Your task to perform on an android device: Open internet settings Image 0: 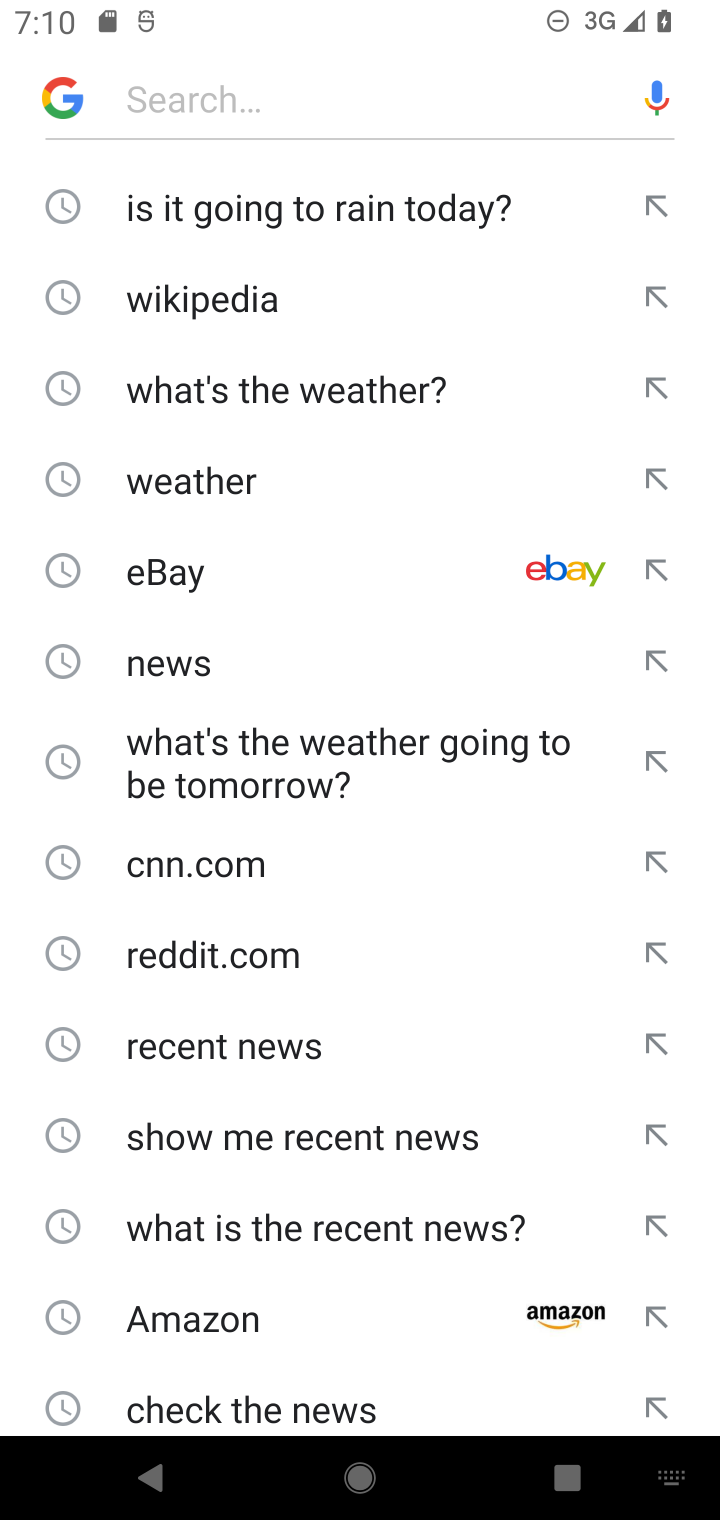
Step 0: press home button
Your task to perform on an android device: Open internet settings Image 1: 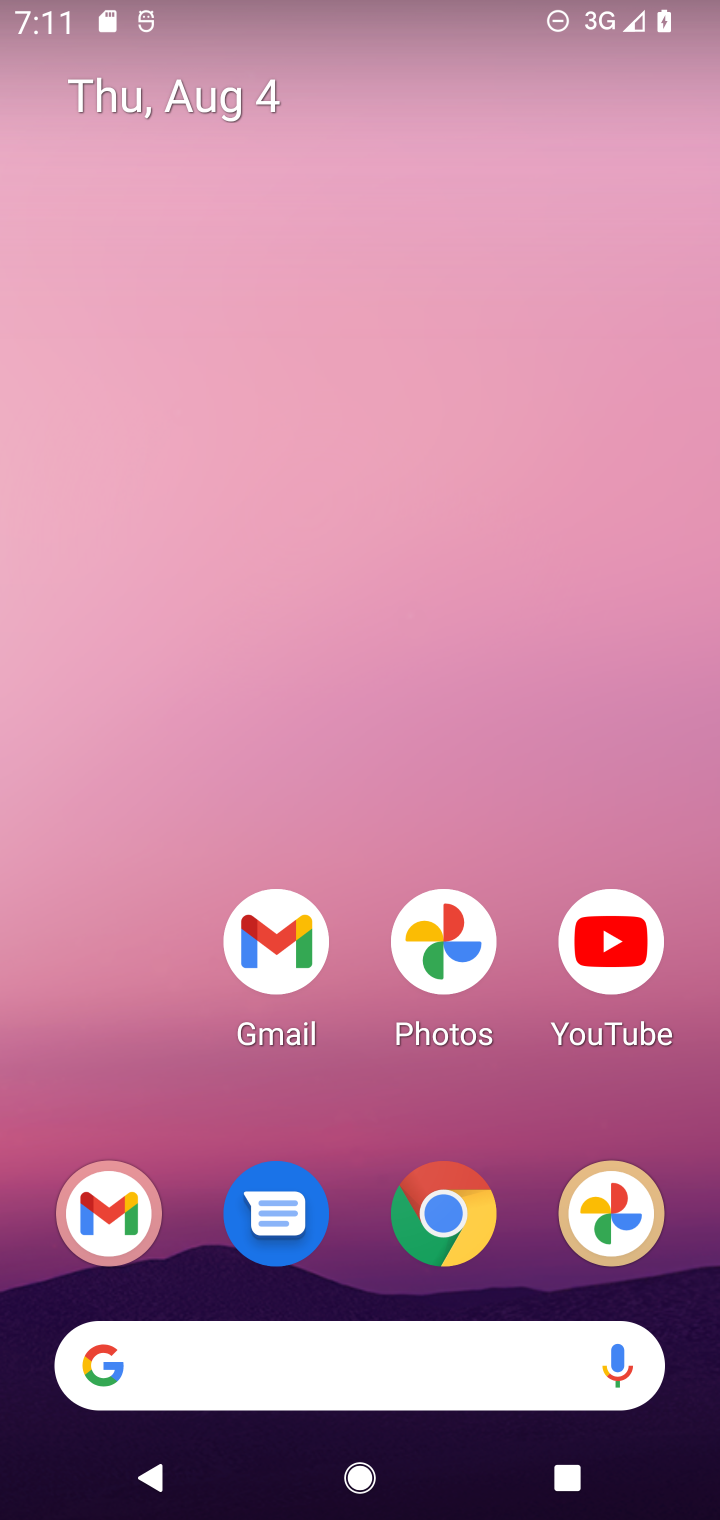
Step 1: drag from (174, 1025) to (189, 242)
Your task to perform on an android device: Open internet settings Image 2: 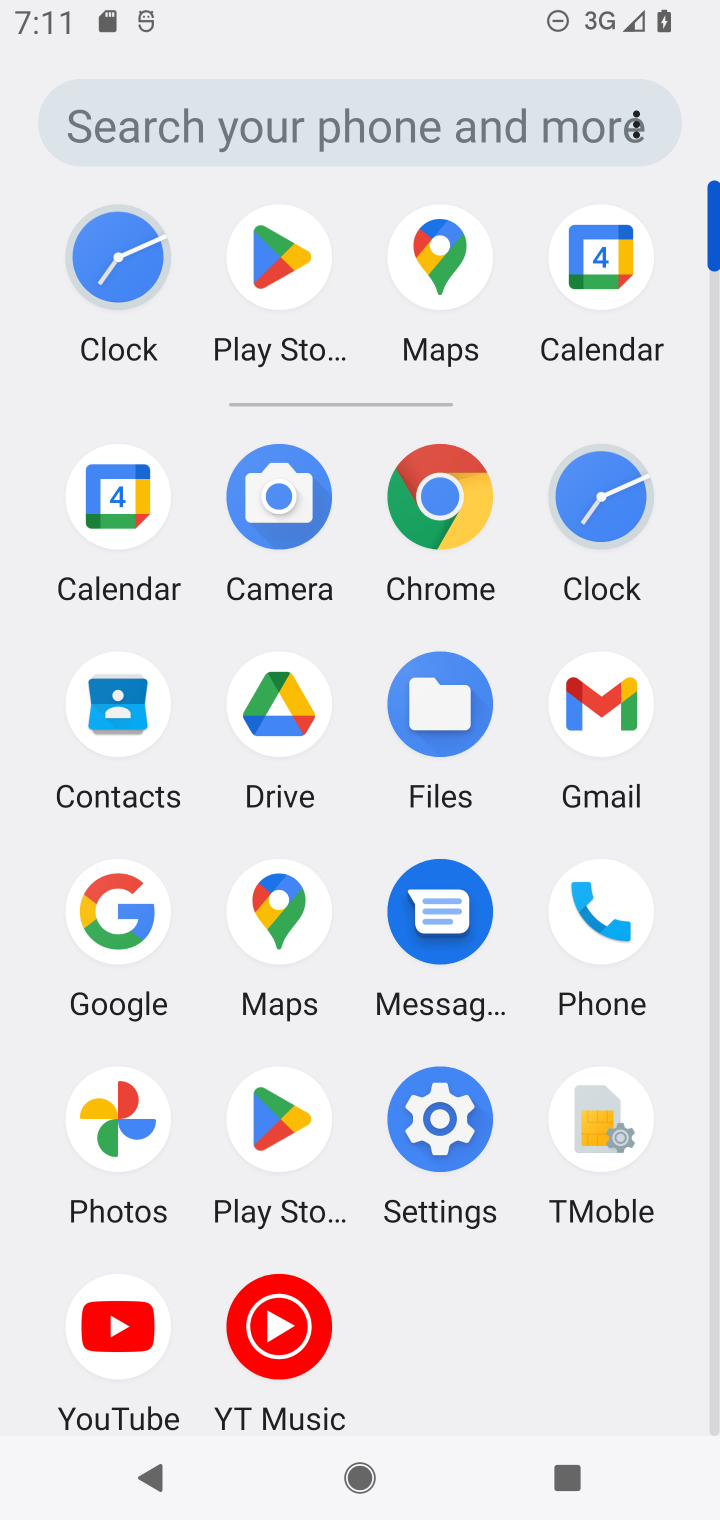
Step 2: click (442, 1122)
Your task to perform on an android device: Open internet settings Image 3: 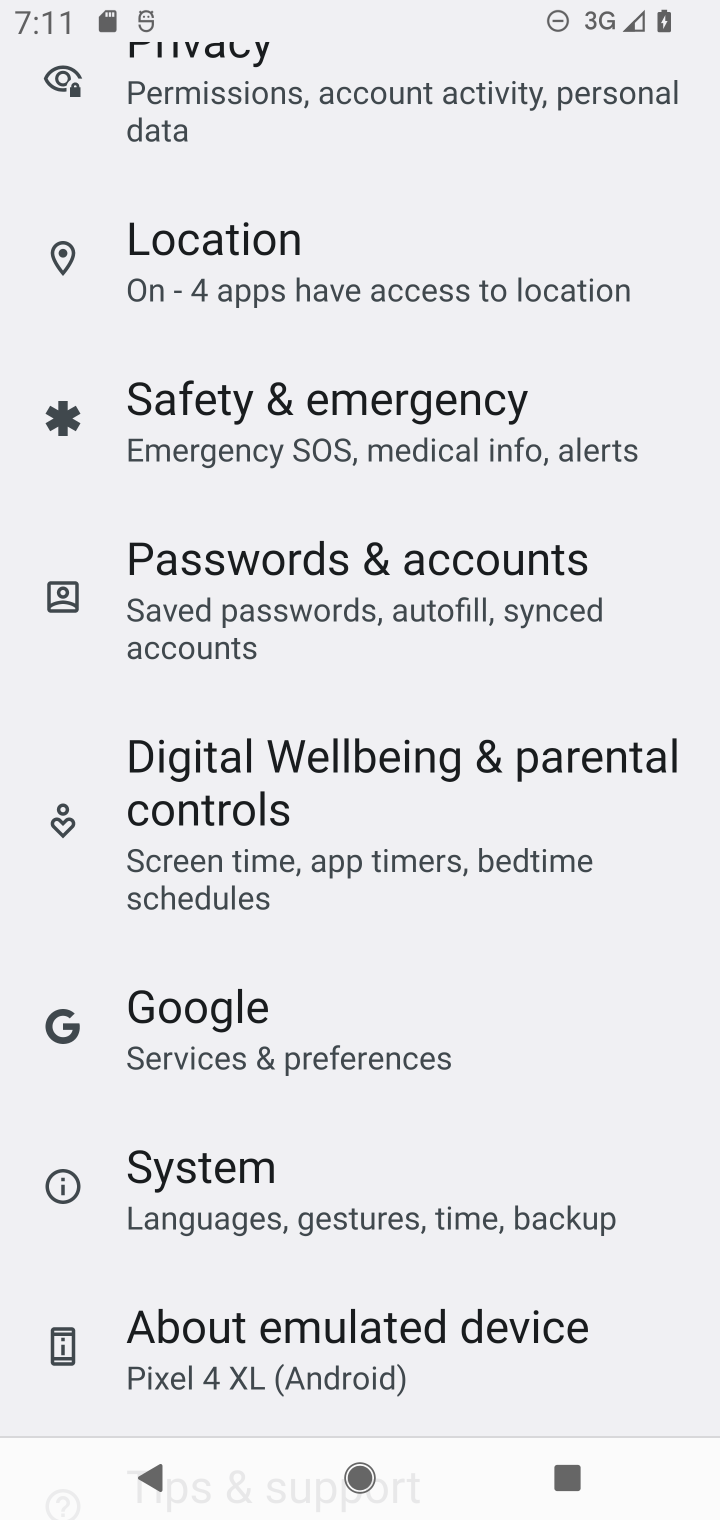
Step 3: drag from (656, 497) to (650, 798)
Your task to perform on an android device: Open internet settings Image 4: 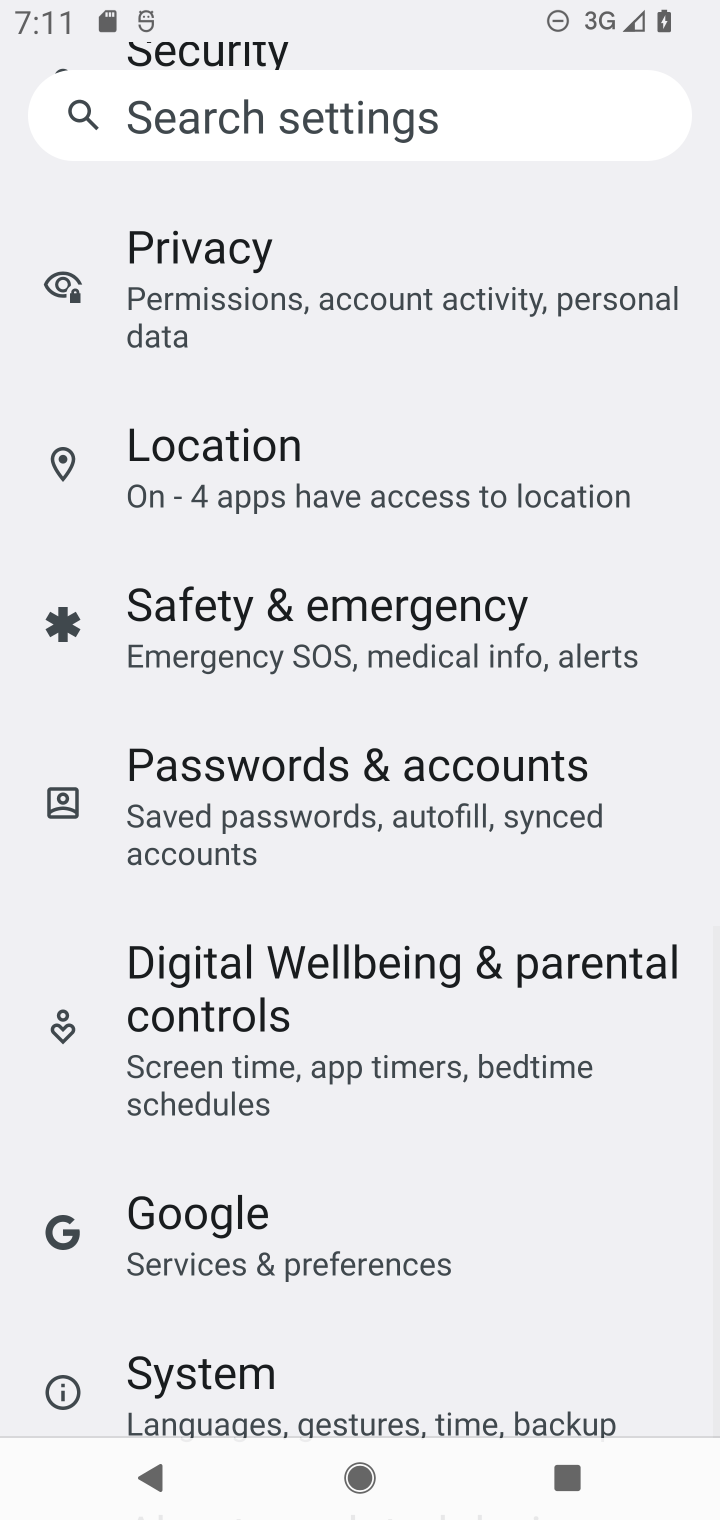
Step 4: drag from (644, 440) to (648, 825)
Your task to perform on an android device: Open internet settings Image 5: 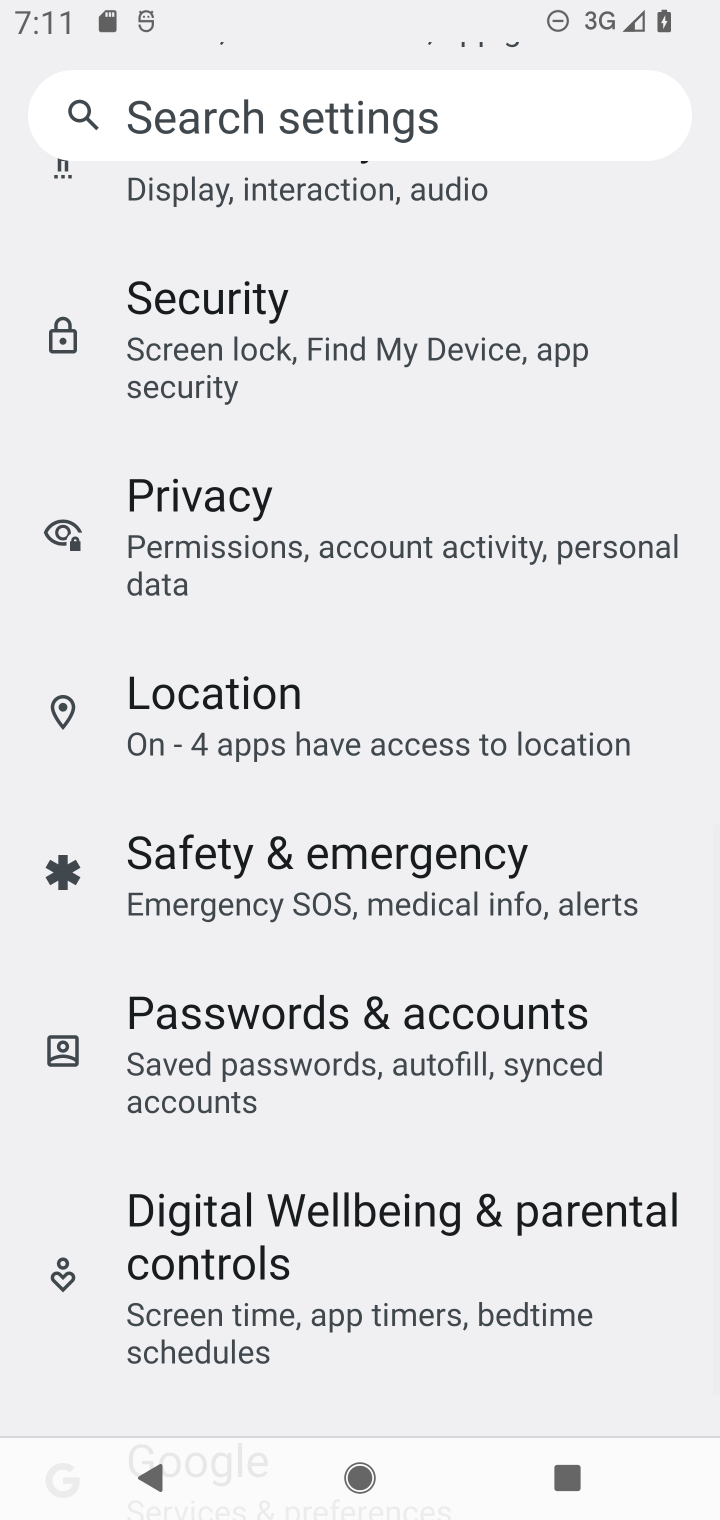
Step 5: drag from (638, 320) to (617, 766)
Your task to perform on an android device: Open internet settings Image 6: 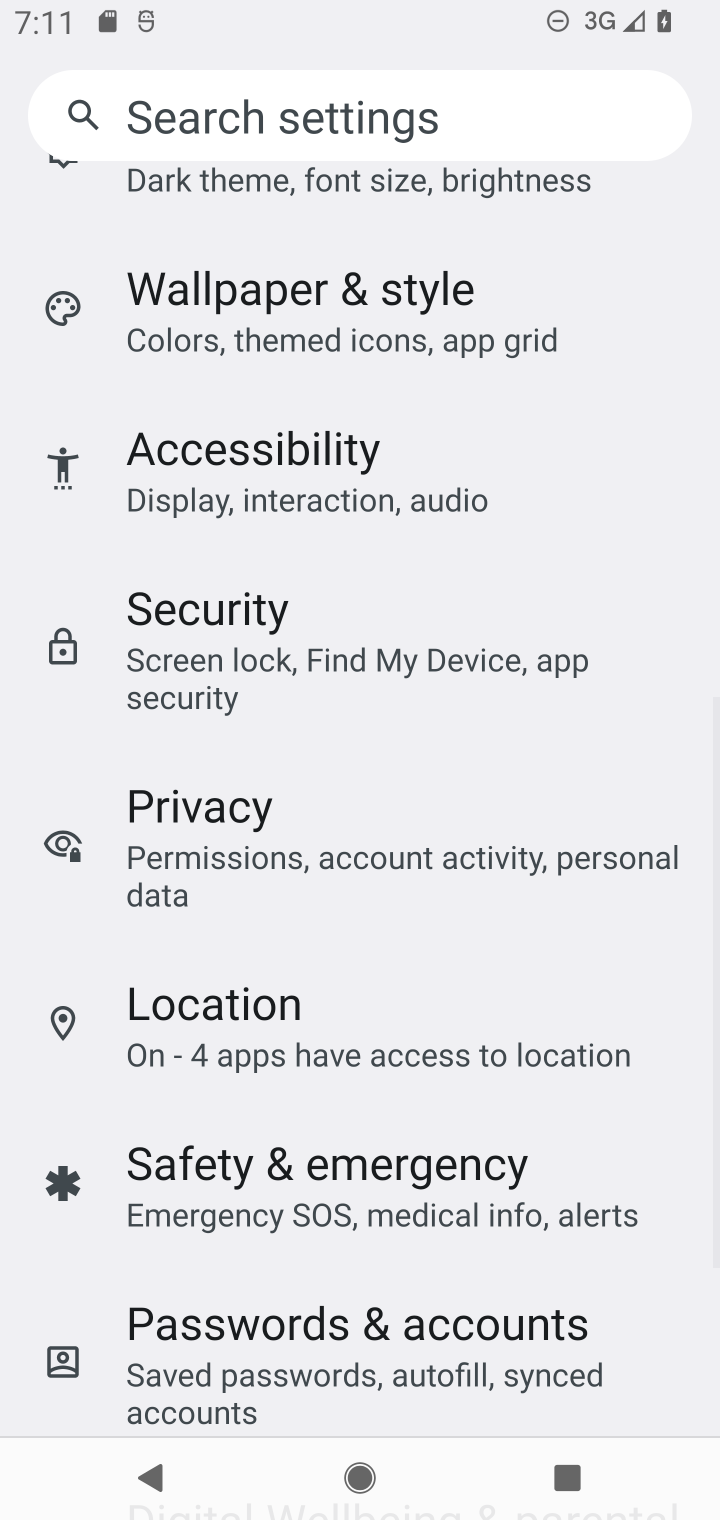
Step 6: drag from (613, 320) to (633, 733)
Your task to perform on an android device: Open internet settings Image 7: 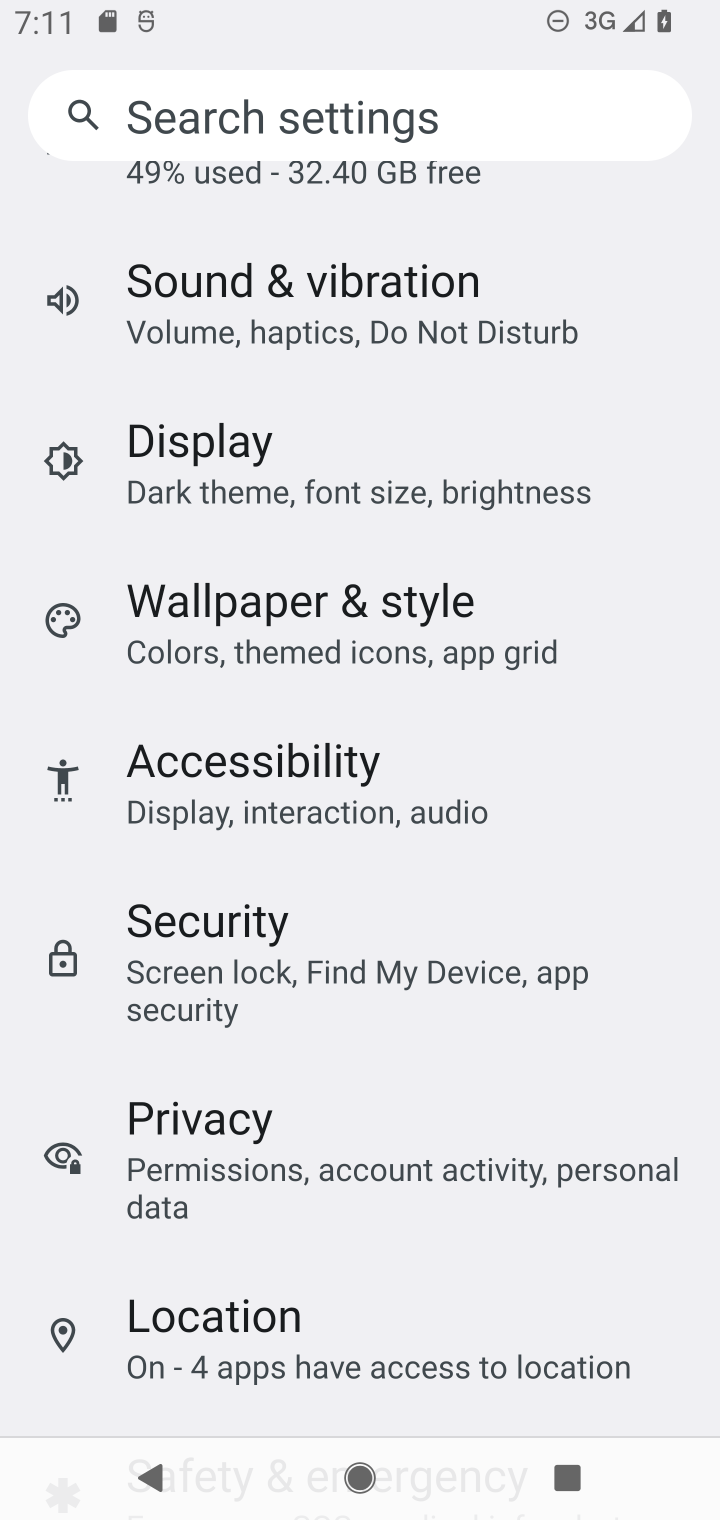
Step 7: drag from (633, 234) to (631, 660)
Your task to perform on an android device: Open internet settings Image 8: 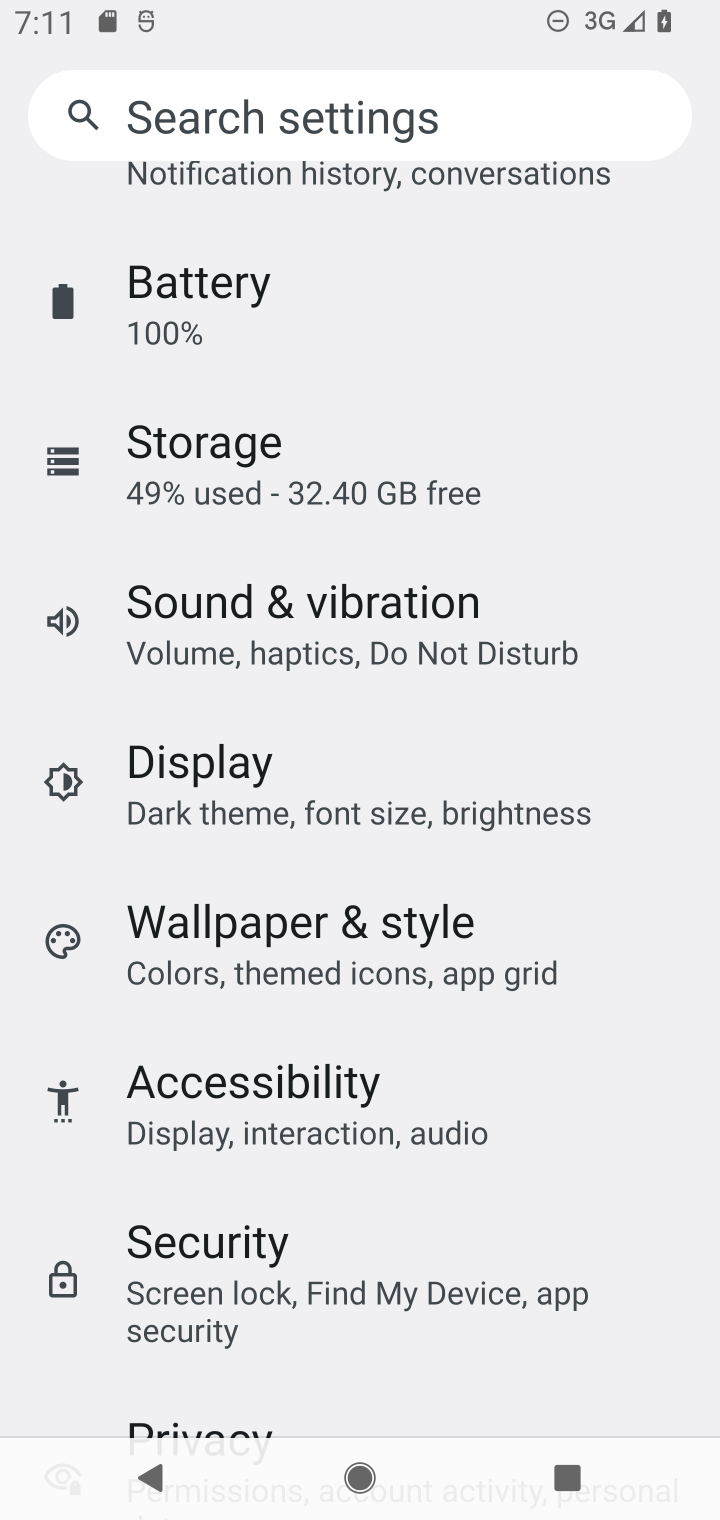
Step 8: drag from (619, 365) to (621, 773)
Your task to perform on an android device: Open internet settings Image 9: 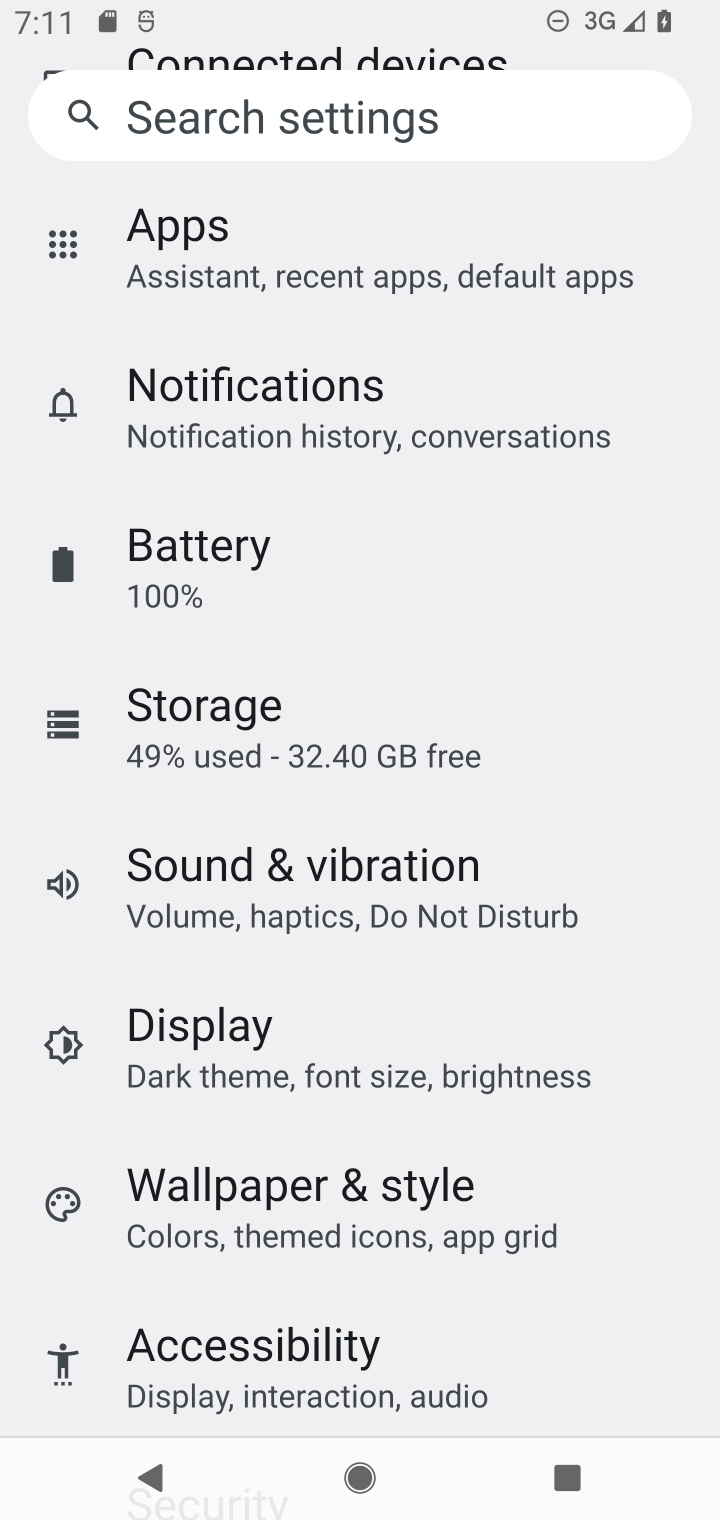
Step 9: drag from (636, 319) to (636, 756)
Your task to perform on an android device: Open internet settings Image 10: 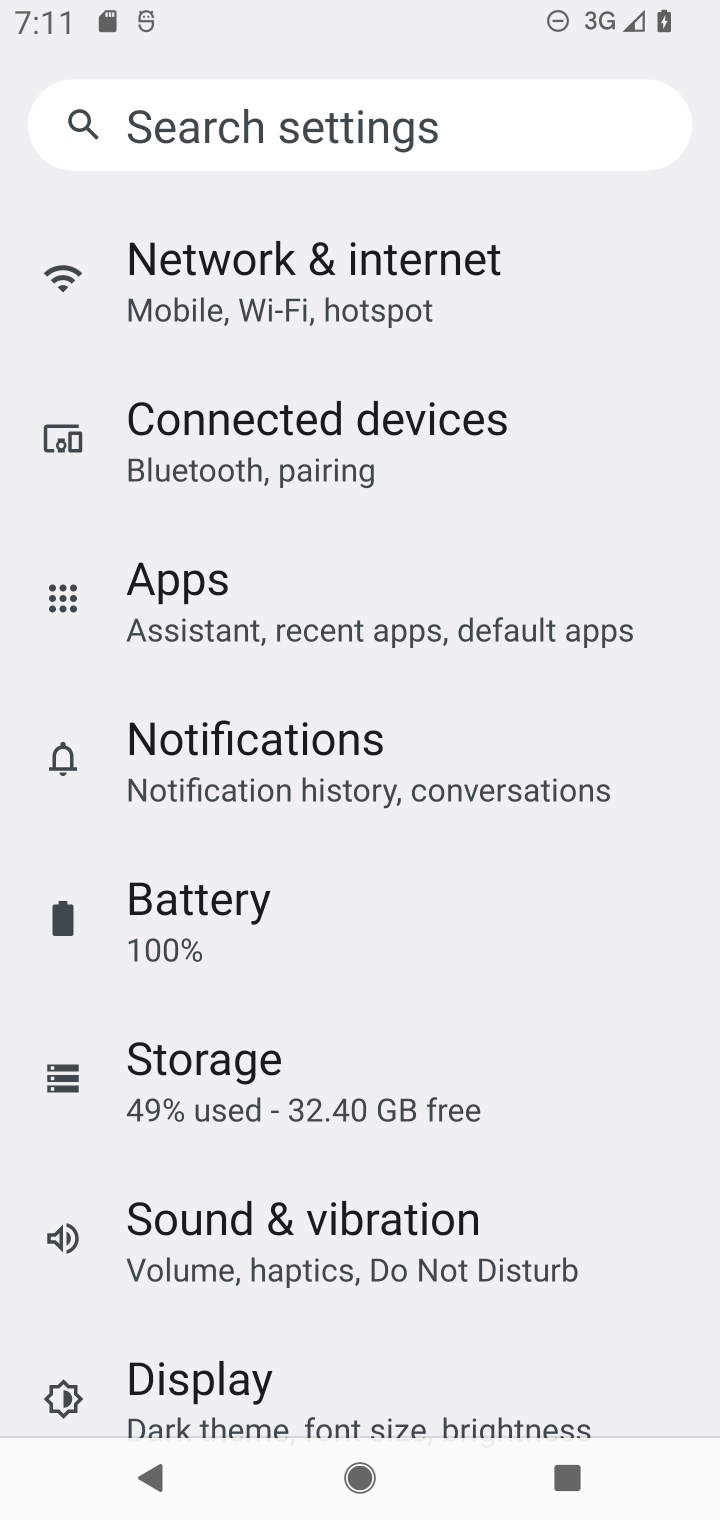
Step 10: drag from (615, 290) to (615, 742)
Your task to perform on an android device: Open internet settings Image 11: 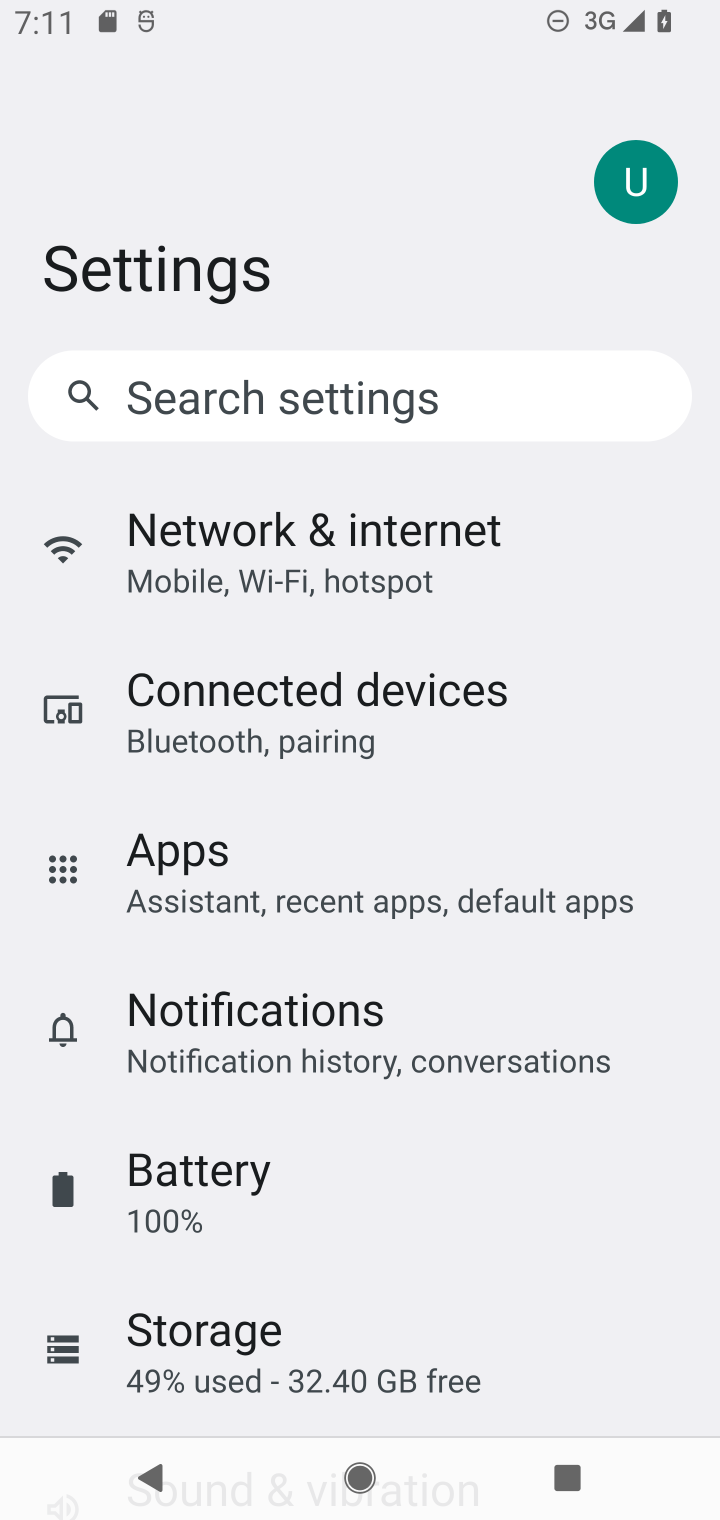
Step 11: click (383, 570)
Your task to perform on an android device: Open internet settings Image 12: 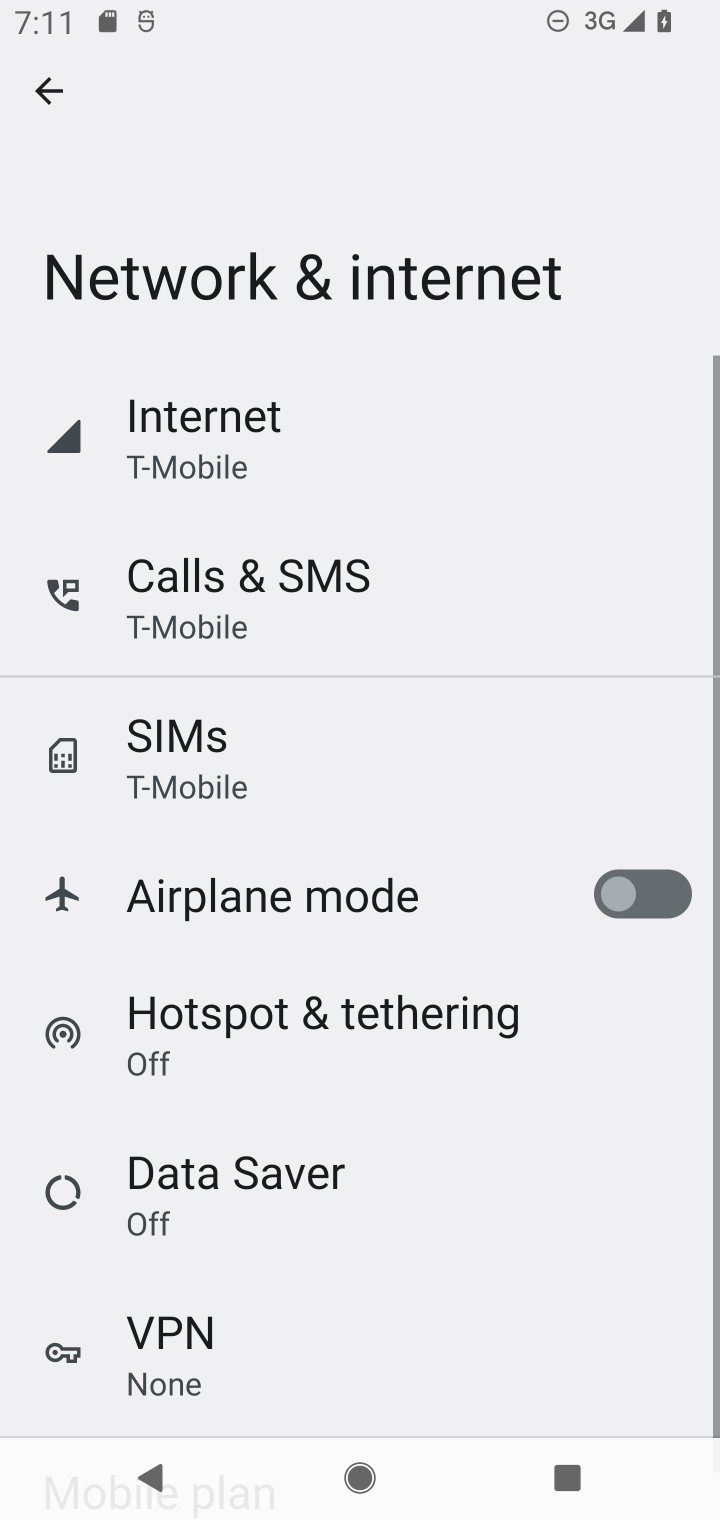
Step 12: task complete